Your task to perform on an android device: star an email in the gmail app Image 0: 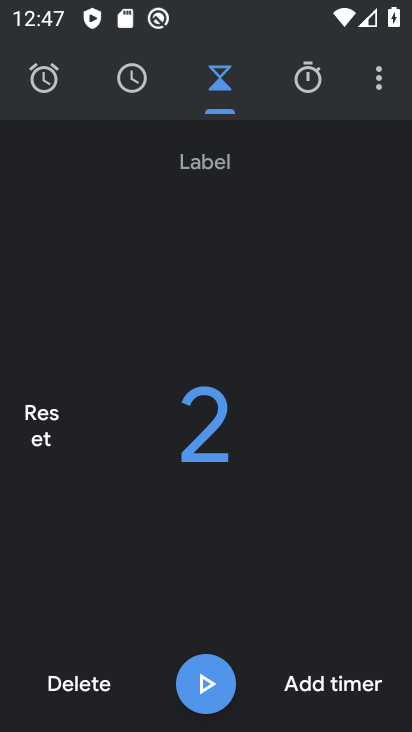
Step 0: press home button
Your task to perform on an android device: star an email in the gmail app Image 1: 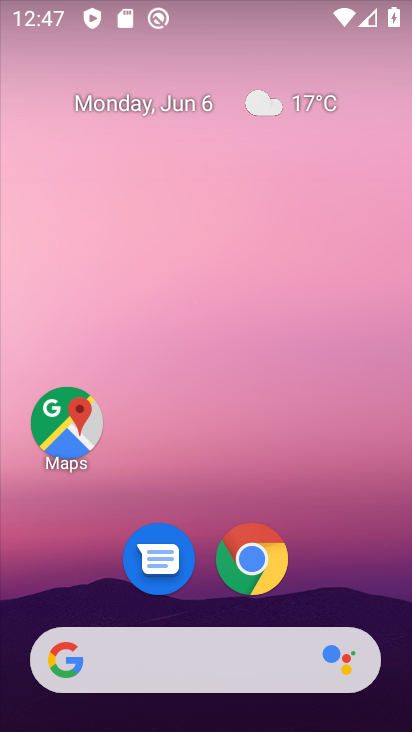
Step 1: drag from (239, 667) to (253, 221)
Your task to perform on an android device: star an email in the gmail app Image 2: 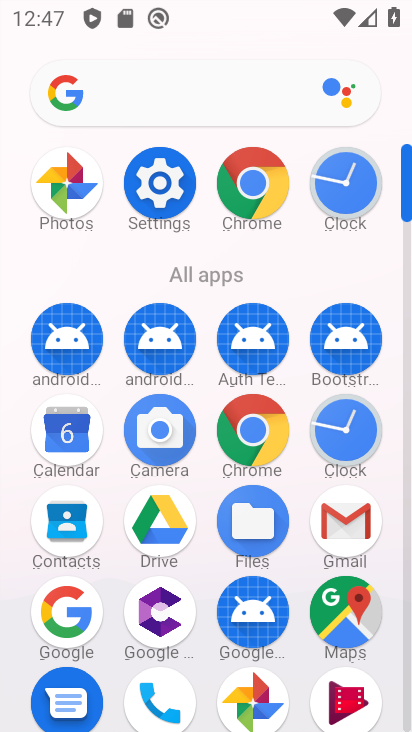
Step 2: click (359, 516)
Your task to perform on an android device: star an email in the gmail app Image 3: 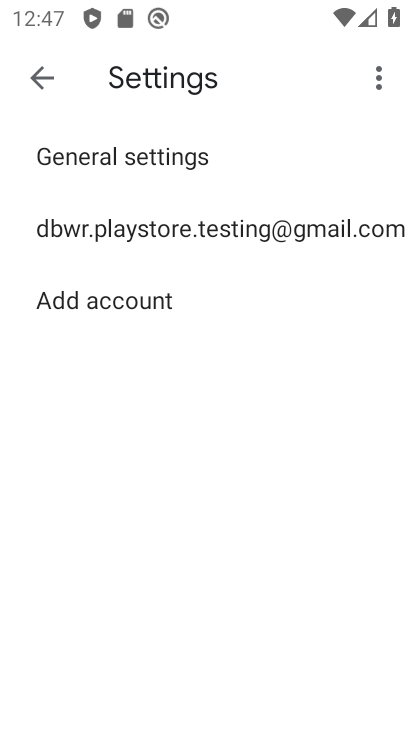
Step 3: click (45, 88)
Your task to perform on an android device: star an email in the gmail app Image 4: 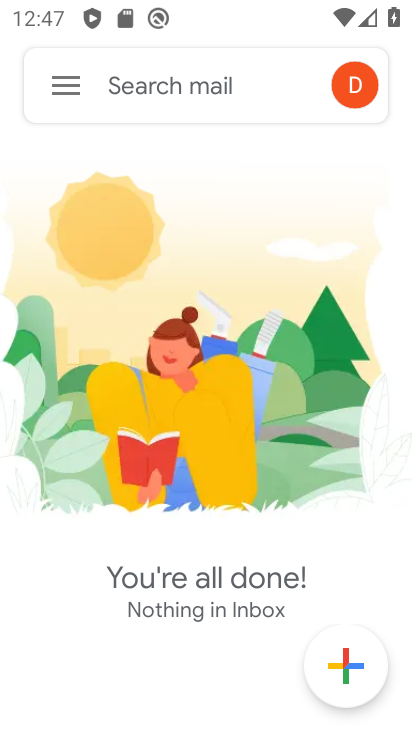
Step 4: click (60, 88)
Your task to perform on an android device: star an email in the gmail app Image 5: 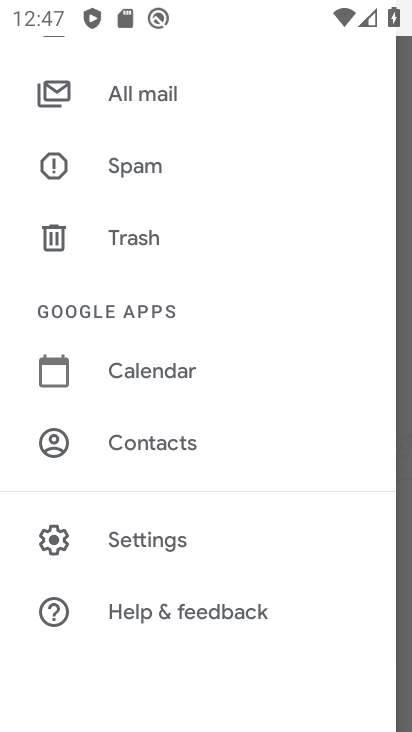
Step 5: drag from (152, 248) to (139, 526)
Your task to perform on an android device: star an email in the gmail app Image 6: 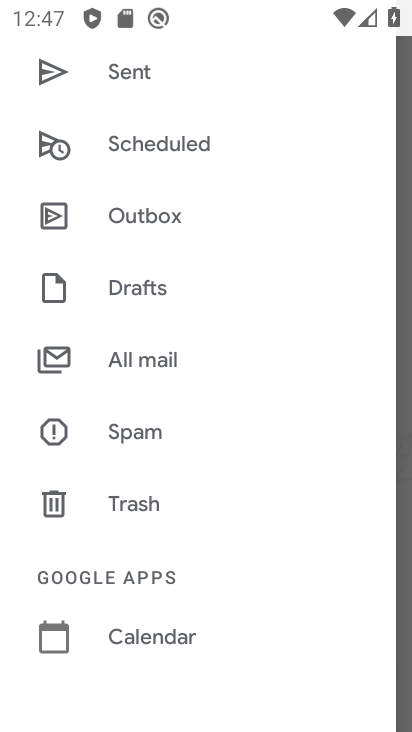
Step 6: click (152, 365)
Your task to perform on an android device: star an email in the gmail app Image 7: 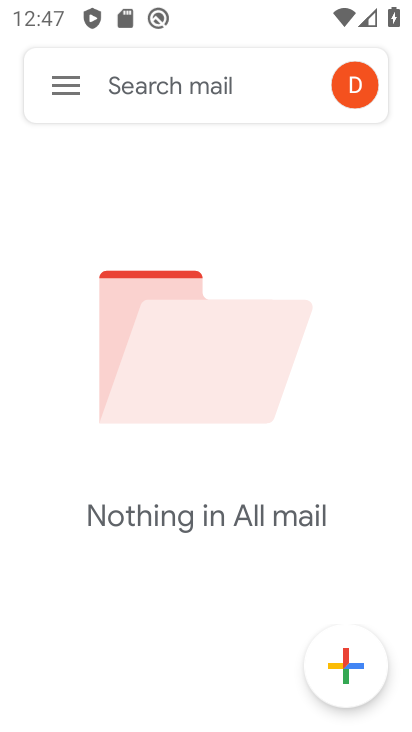
Step 7: task complete